Your task to perform on an android device: Open calendar and show me the third week of next month Image 0: 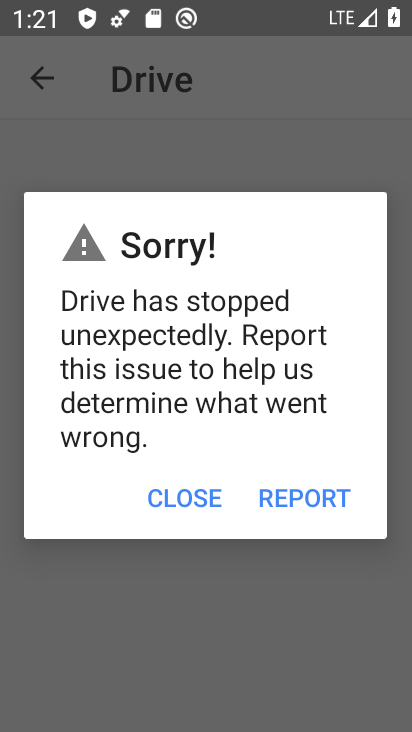
Step 0: press home button
Your task to perform on an android device: Open calendar and show me the third week of next month Image 1: 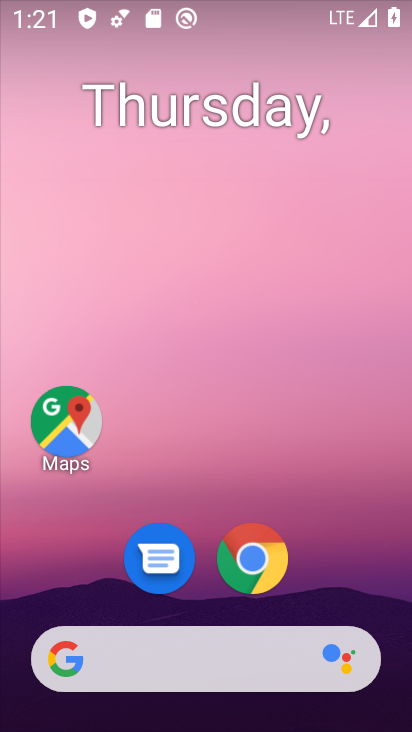
Step 1: drag from (356, 581) to (260, 93)
Your task to perform on an android device: Open calendar and show me the third week of next month Image 2: 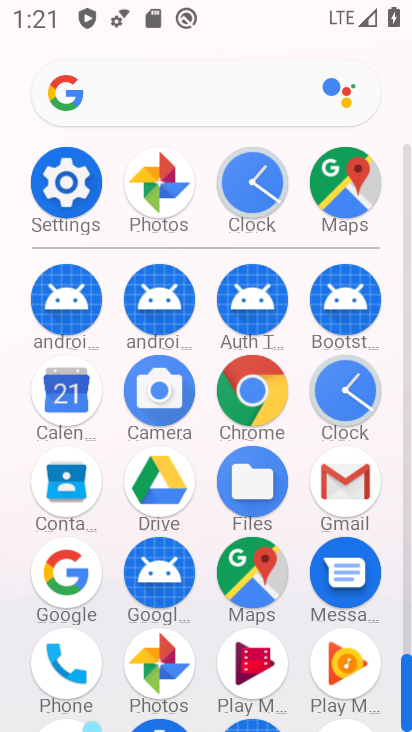
Step 2: click (61, 405)
Your task to perform on an android device: Open calendar and show me the third week of next month Image 3: 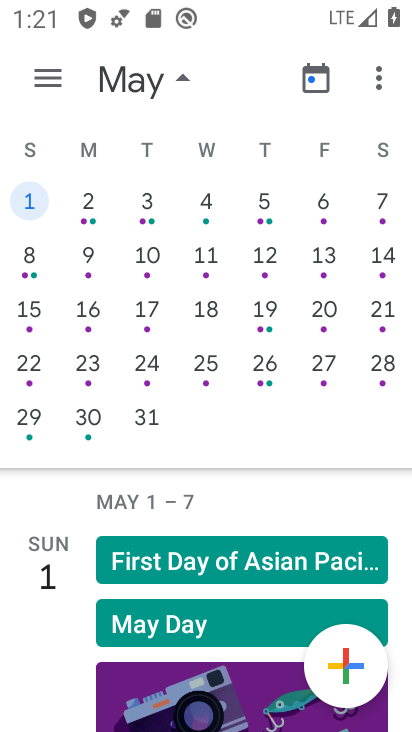
Step 3: click (30, 313)
Your task to perform on an android device: Open calendar and show me the third week of next month Image 4: 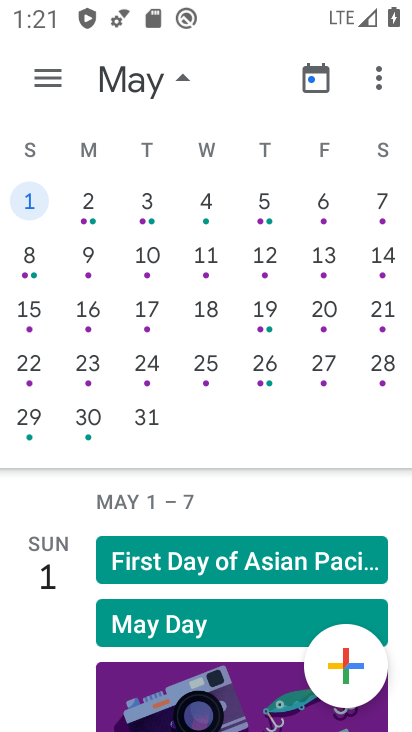
Step 4: click (53, 312)
Your task to perform on an android device: Open calendar and show me the third week of next month Image 5: 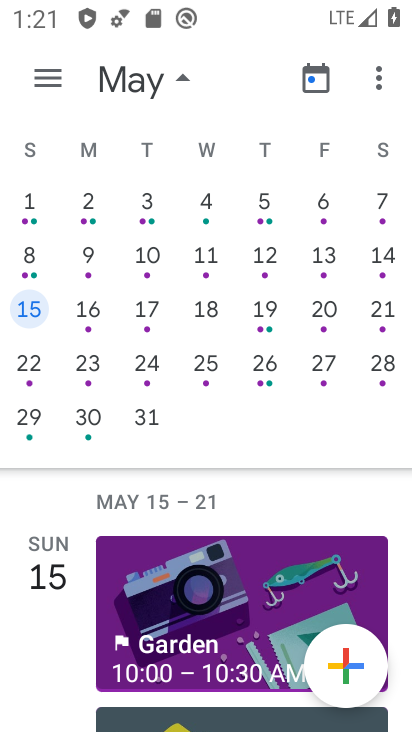
Step 5: task complete